Your task to perform on an android device: install app "YouTube Kids" Image 0: 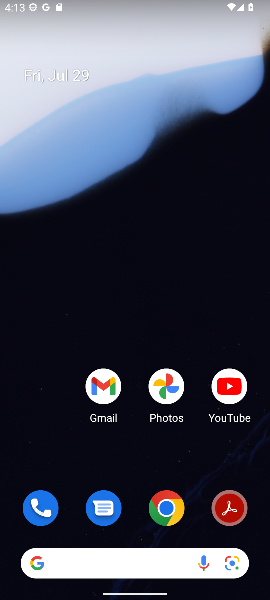
Step 0: drag from (217, 457) to (69, 93)
Your task to perform on an android device: install app "YouTube Kids" Image 1: 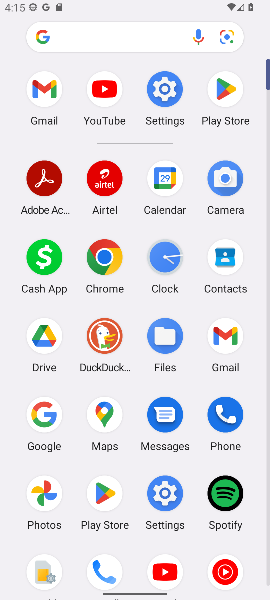
Step 1: click (112, 499)
Your task to perform on an android device: install app "YouTube Kids" Image 2: 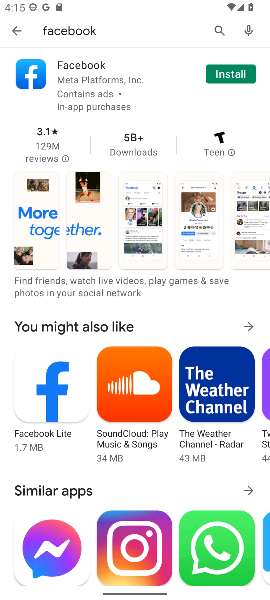
Step 2: press back button
Your task to perform on an android device: install app "YouTube Kids" Image 3: 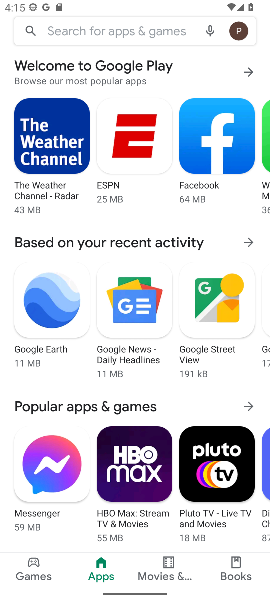
Step 3: click (98, 30)
Your task to perform on an android device: install app "YouTube Kids" Image 4: 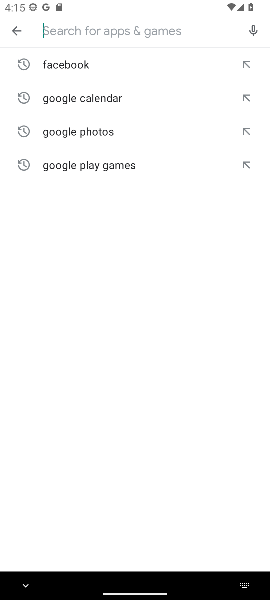
Step 4: type "YouTube Kids"
Your task to perform on an android device: install app "YouTube Kids" Image 5: 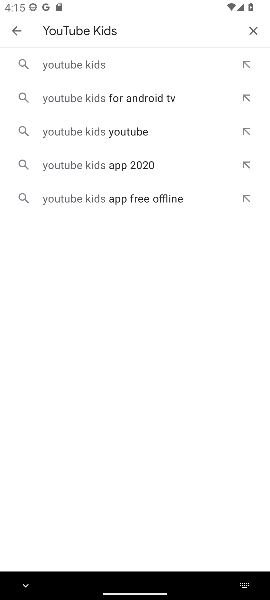
Step 5: click (82, 65)
Your task to perform on an android device: install app "YouTube Kids" Image 6: 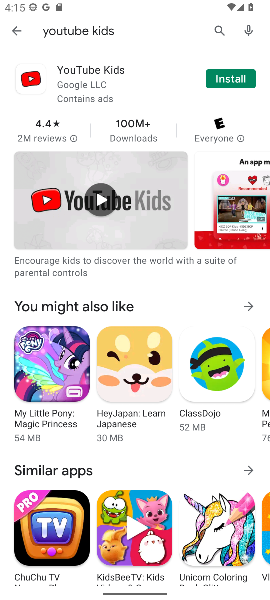
Step 6: click (253, 82)
Your task to perform on an android device: install app "YouTube Kids" Image 7: 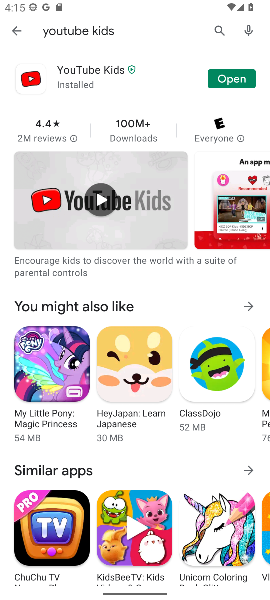
Step 7: task complete